Your task to perform on an android device: Open calendar and show me the third week of next month Image 0: 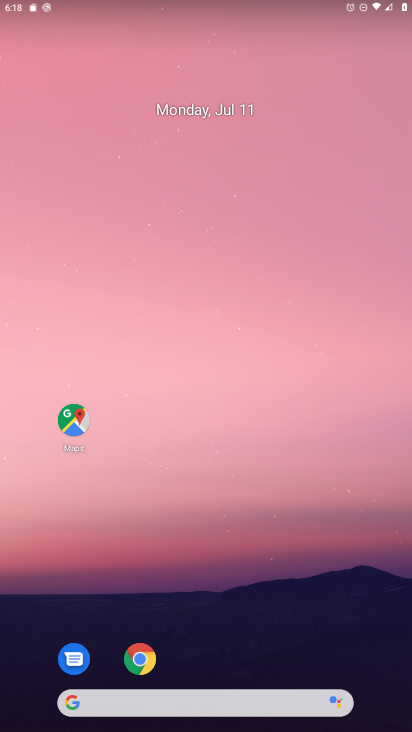
Step 0: drag from (339, 643) to (336, 126)
Your task to perform on an android device: Open calendar and show me the third week of next month Image 1: 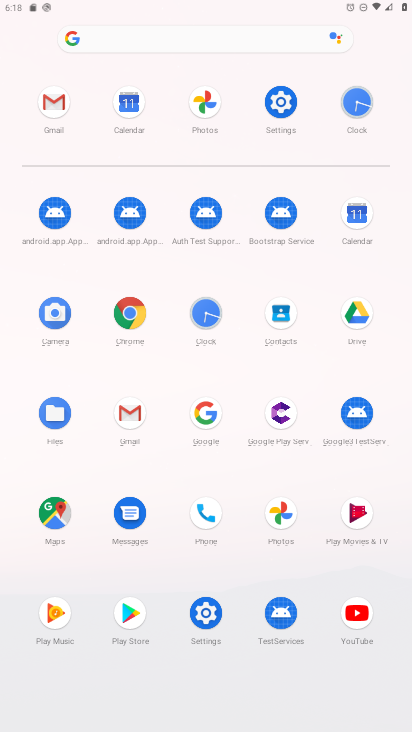
Step 1: click (358, 212)
Your task to perform on an android device: Open calendar and show me the third week of next month Image 2: 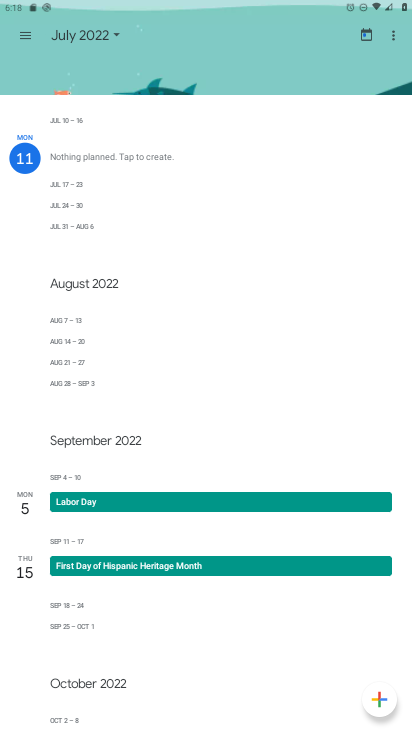
Step 2: click (20, 35)
Your task to perform on an android device: Open calendar and show me the third week of next month Image 3: 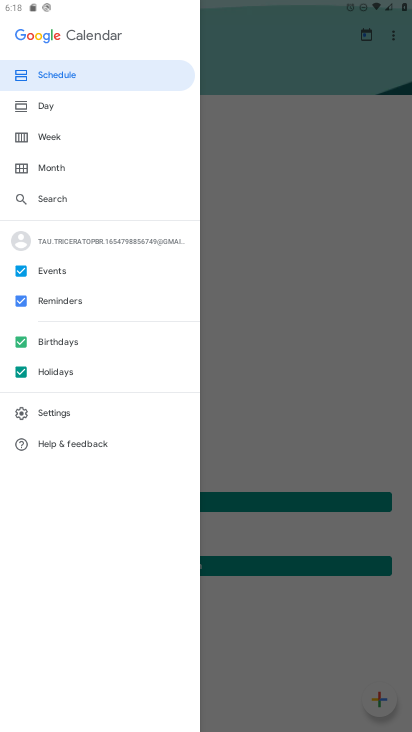
Step 3: click (51, 138)
Your task to perform on an android device: Open calendar and show me the third week of next month Image 4: 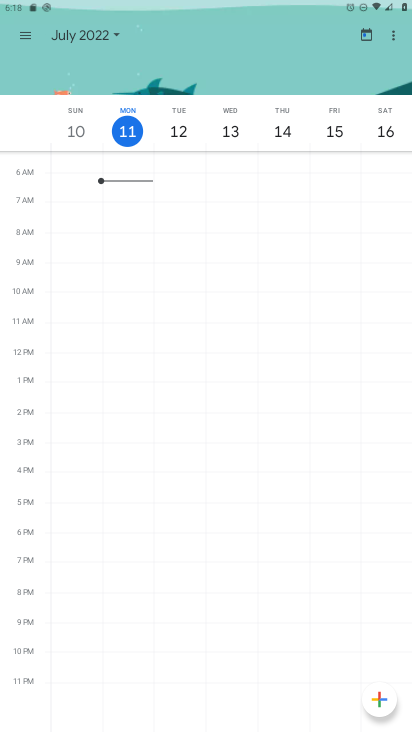
Step 4: click (115, 36)
Your task to perform on an android device: Open calendar and show me the third week of next month Image 5: 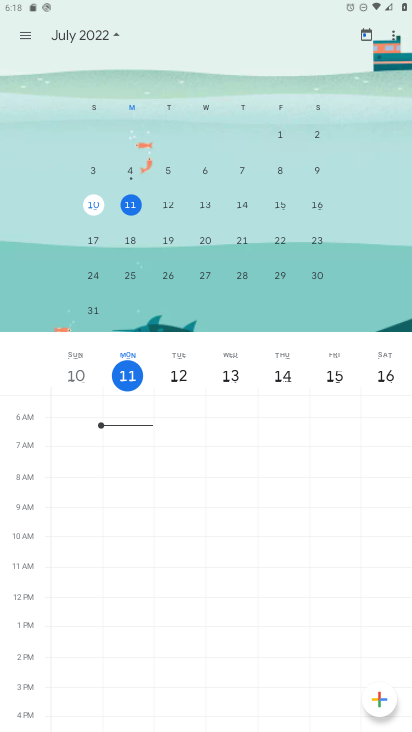
Step 5: drag from (320, 263) to (65, 244)
Your task to perform on an android device: Open calendar and show me the third week of next month Image 6: 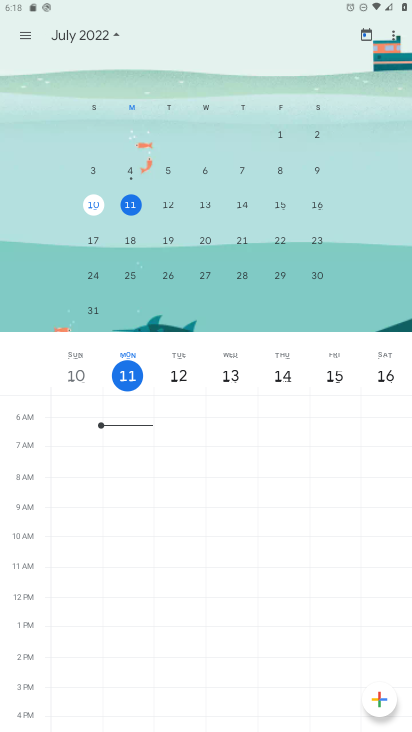
Step 6: drag from (335, 234) to (99, 226)
Your task to perform on an android device: Open calendar and show me the third week of next month Image 7: 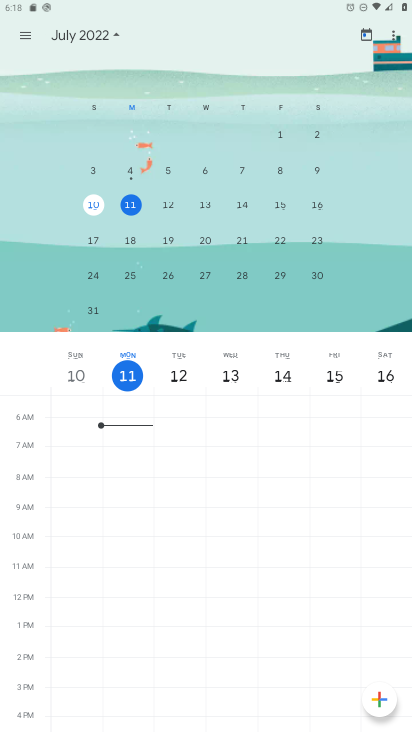
Step 7: drag from (341, 257) to (60, 233)
Your task to perform on an android device: Open calendar and show me the third week of next month Image 8: 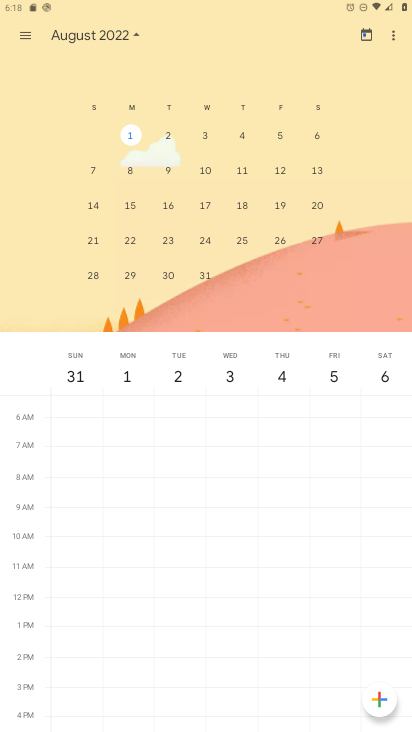
Step 8: click (95, 247)
Your task to perform on an android device: Open calendar and show me the third week of next month Image 9: 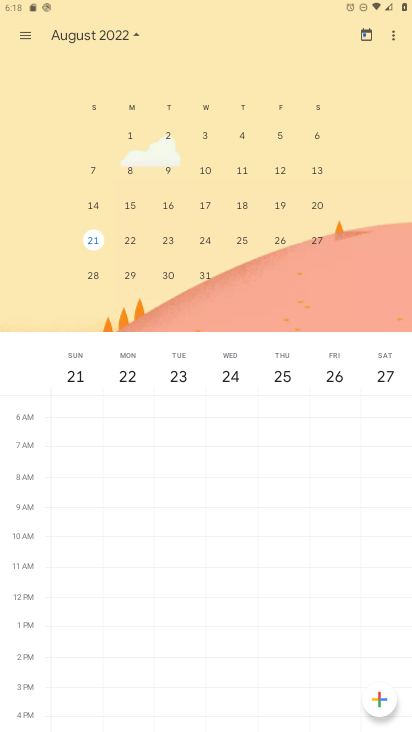
Step 9: task complete